Your task to perform on an android device: turn on javascript in the chrome app Image 0: 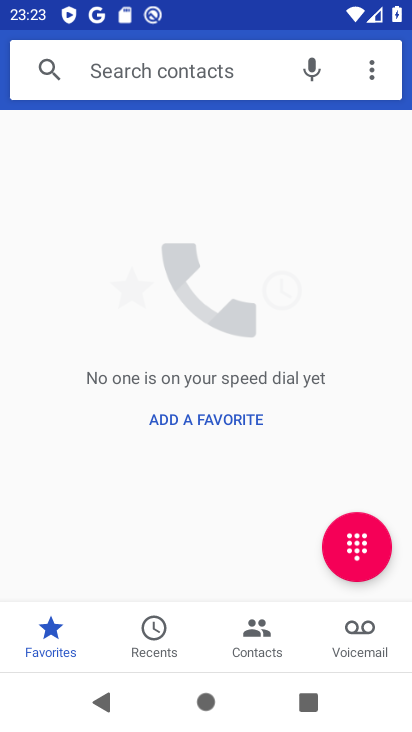
Step 0: press back button
Your task to perform on an android device: turn on javascript in the chrome app Image 1: 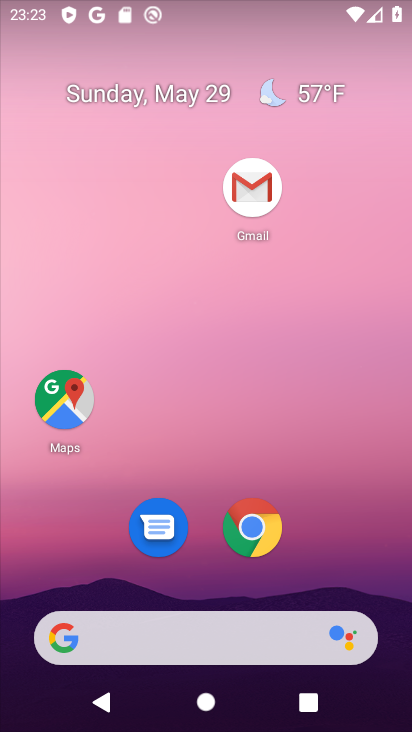
Step 1: click (250, 527)
Your task to perform on an android device: turn on javascript in the chrome app Image 2: 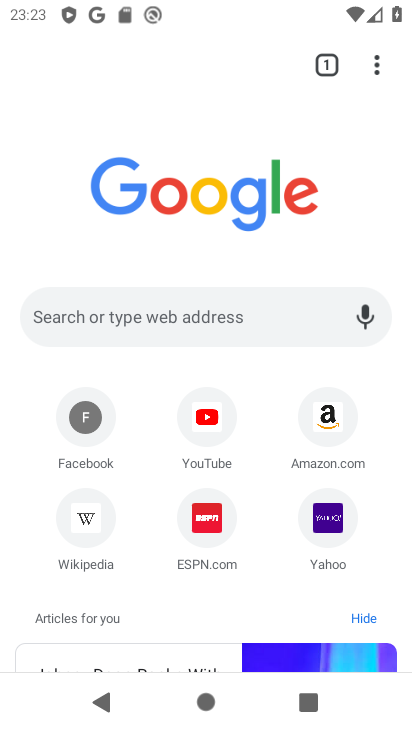
Step 2: click (376, 63)
Your task to perform on an android device: turn on javascript in the chrome app Image 3: 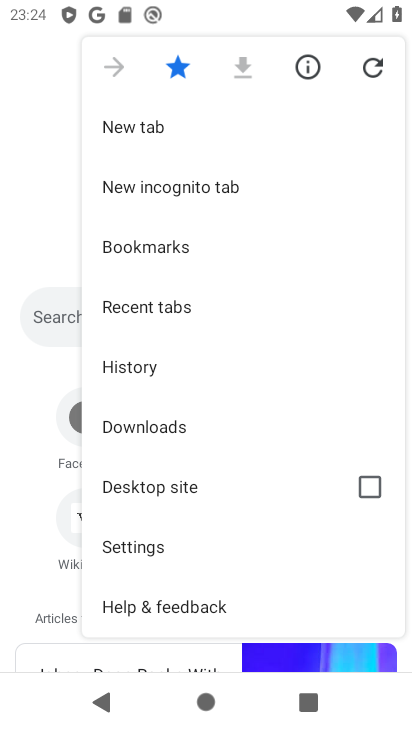
Step 3: click (144, 548)
Your task to perform on an android device: turn on javascript in the chrome app Image 4: 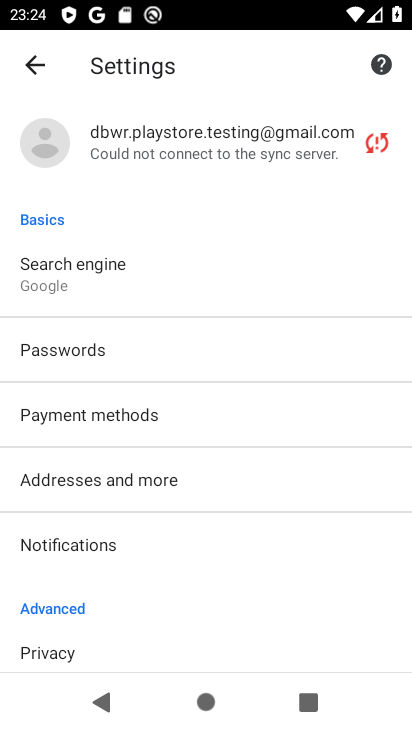
Step 4: drag from (118, 620) to (130, 476)
Your task to perform on an android device: turn on javascript in the chrome app Image 5: 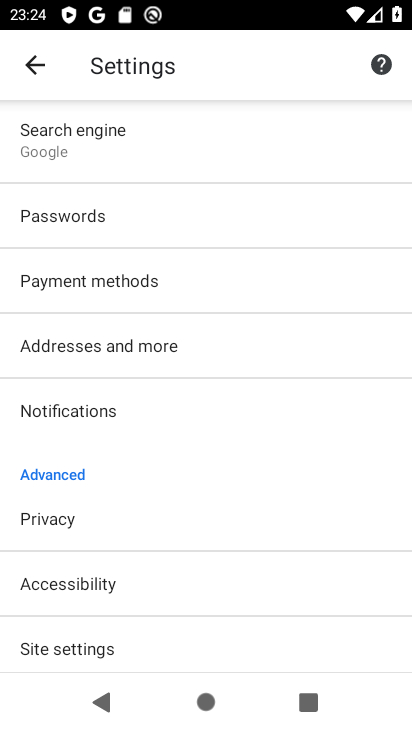
Step 5: drag from (149, 609) to (208, 527)
Your task to perform on an android device: turn on javascript in the chrome app Image 6: 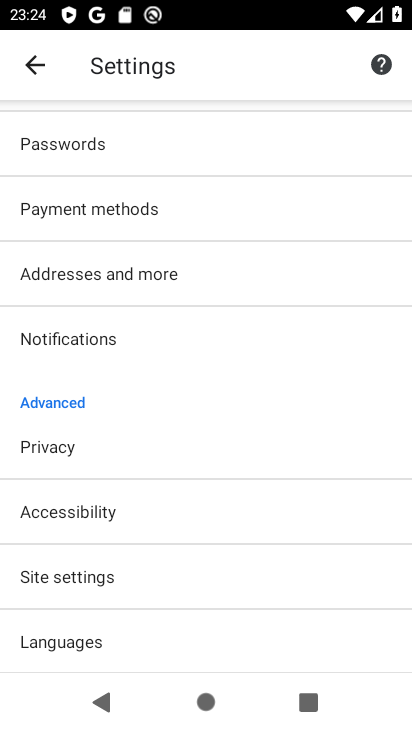
Step 6: click (77, 574)
Your task to perform on an android device: turn on javascript in the chrome app Image 7: 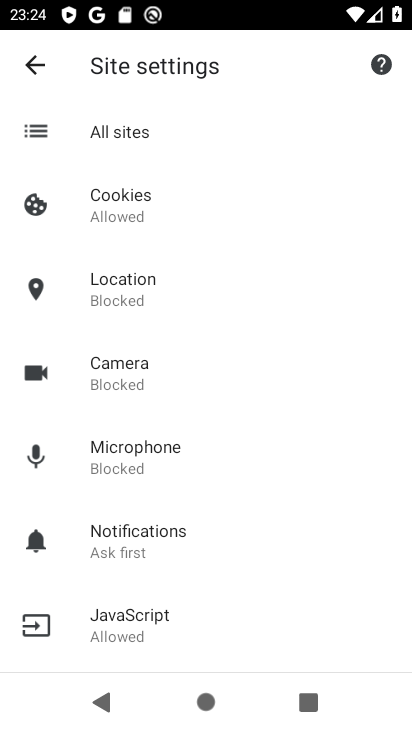
Step 7: drag from (168, 497) to (211, 413)
Your task to perform on an android device: turn on javascript in the chrome app Image 8: 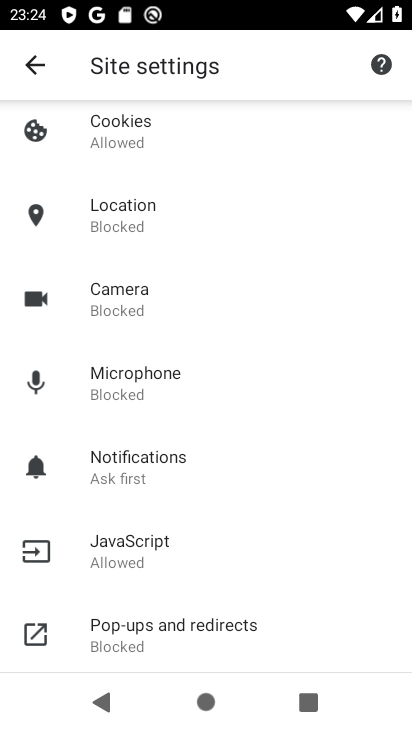
Step 8: click (111, 552)
Your task to perform on an android device: turn on javascript in the chrome app Image 9: 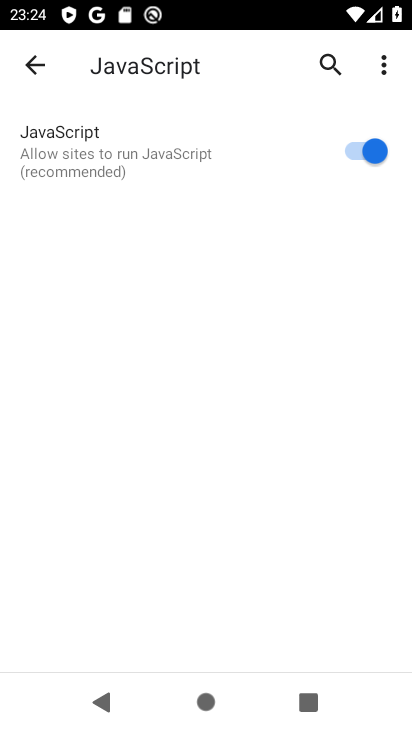
Step 9: task complete